Your task to perform on an android device: What's on my calendar today? Image 0: 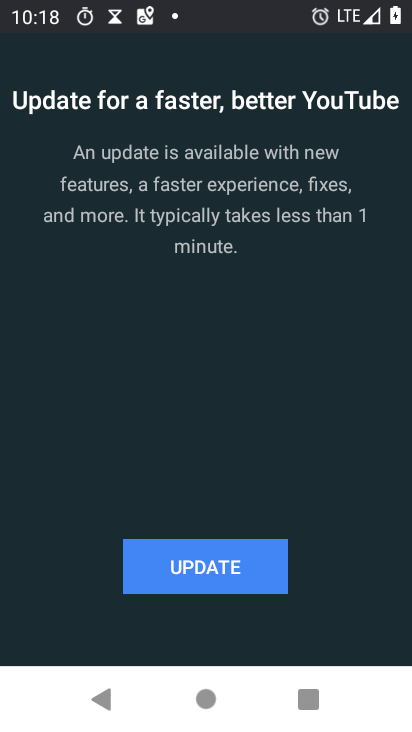
Step 0: press home button
Your task to perform on an android device: What's on my calendar today? Image 1: 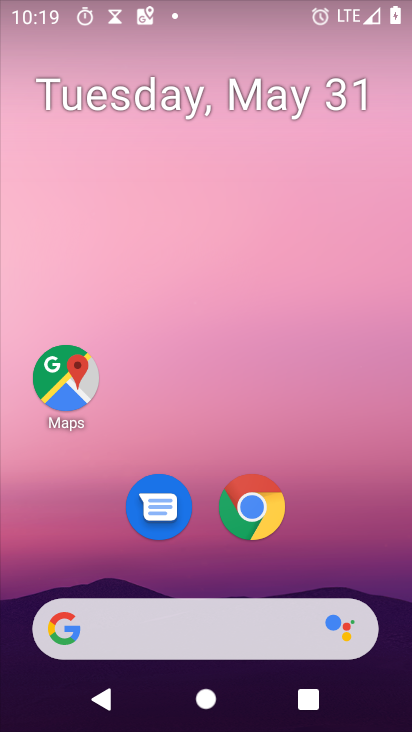
Step 1: drag from (156, 254) to (197, 187)
Your task to perform on an android device: What's on my calendar today? Image 2: 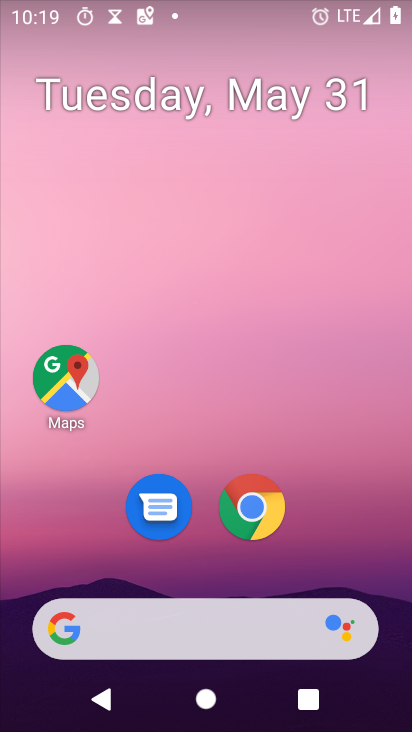
Step 2: drag from (43, 345) to (197, 74)
Your task to perform on an android device: What's on my calendar today? Image 3: 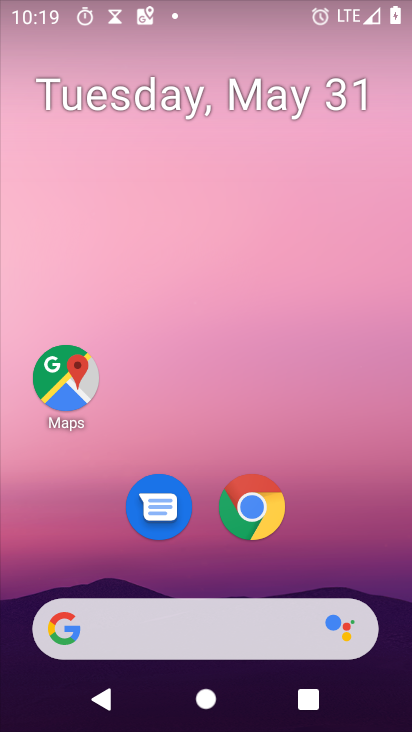
Step 3: drag from (36, 510) to (200, 226)
Your task to perform on an android device: What's on my calendar today? Image 4: 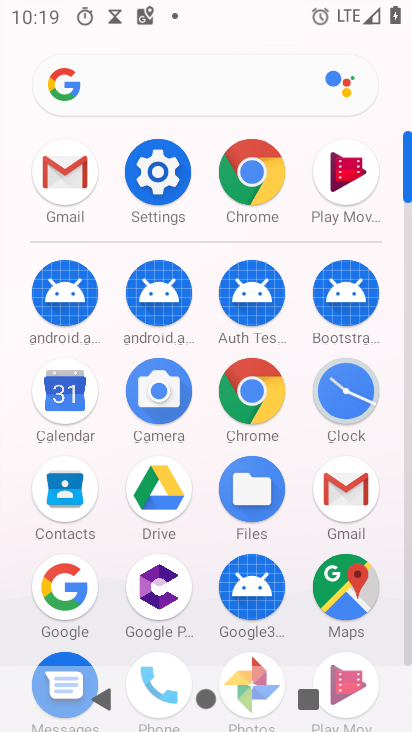
Step 4: click (78, 409)
Your task to perform on an android device: What's on my calendar today? Image 5: 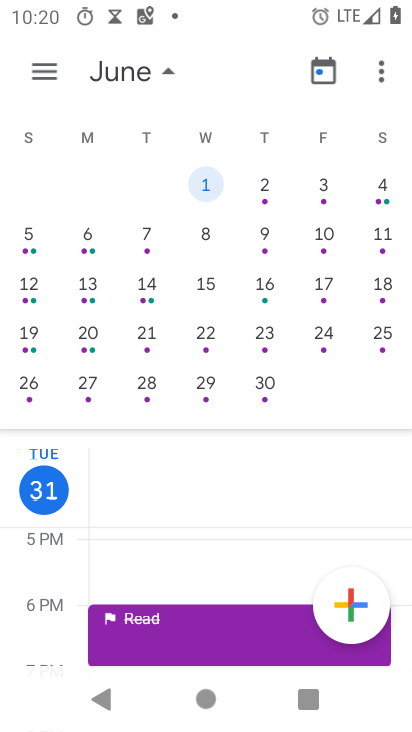
Step 5: task complete